Your task to perform on an android device: Open battery settings Image 0: 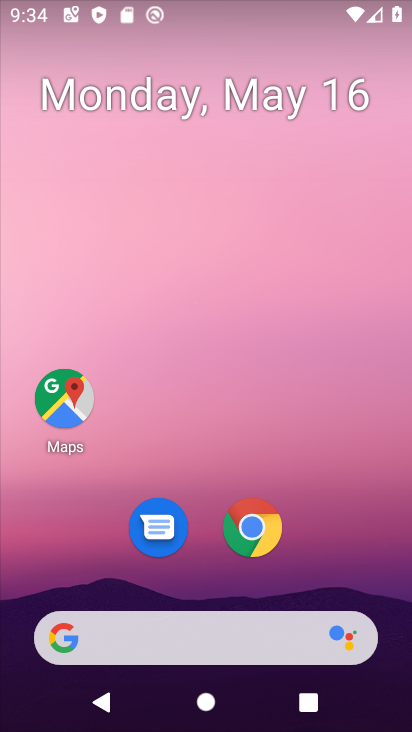
Step 0: drag from (355, 596) to (353, 7)
Your task to perform on an android device: Open battery settings Image 1: 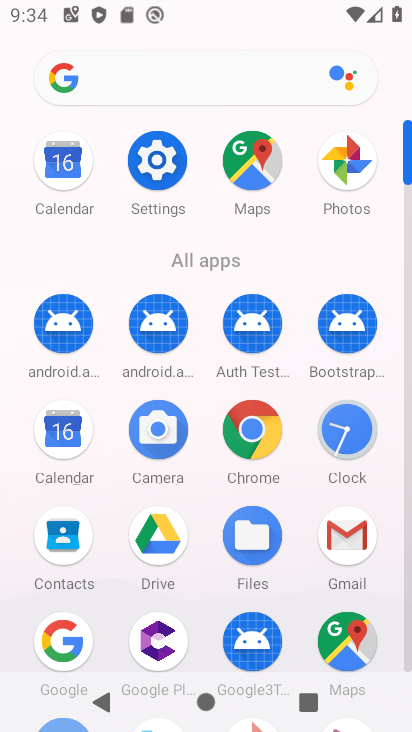
Step 1: click (168, 160)
Your task to perform on an android device: Open battery settings Image 2: 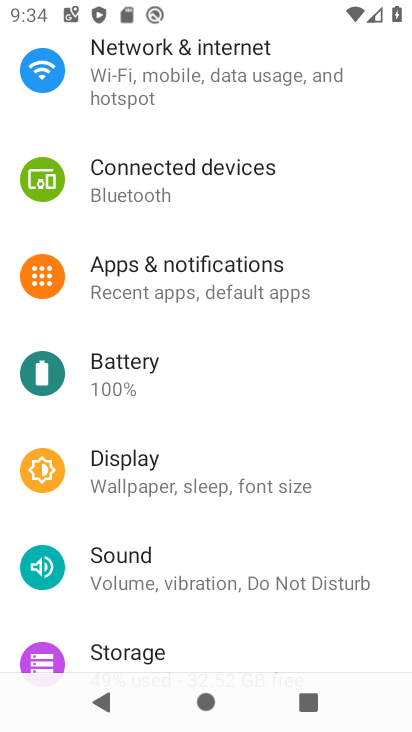
Step 2: click (110, 369)
Your task to perform on an android device: Open battery settings Image 3: 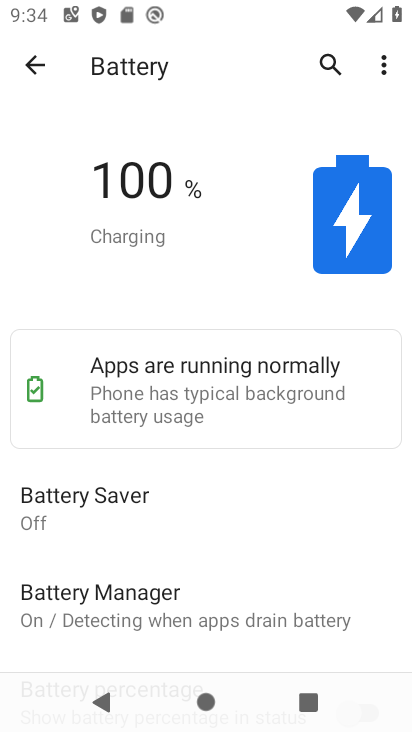
Step 3: task complete